Your task to perform on an android device: Play the last video I watched on Youtube Image 0: 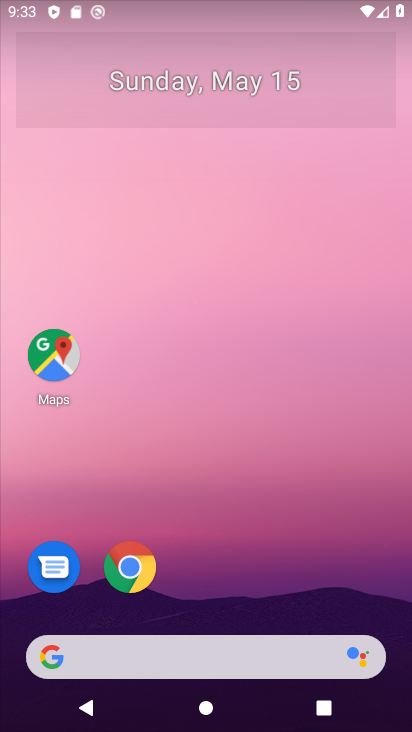
Step 0: drag from (242, 563) to (237, 137)
Your task to perform on an android device: Play the last video I watched on Youtube Image 1: 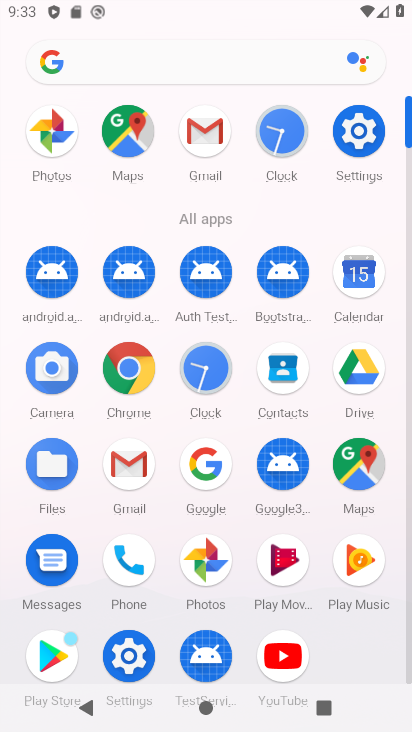
Step 1: click (285, 653)
Your task to perform on an android device: Play the last video I watched on Youtube Image 2: 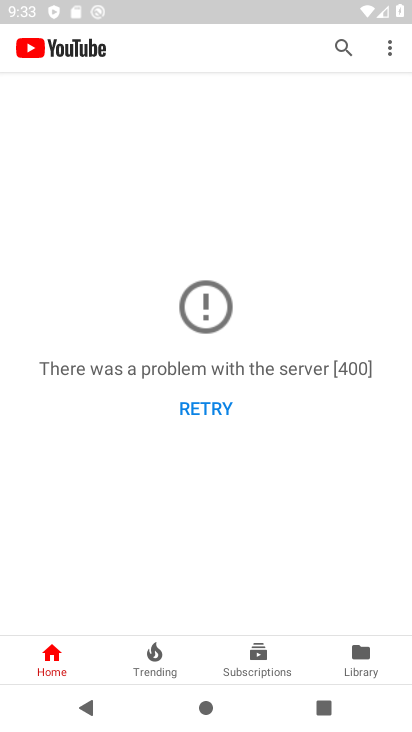
Step 2: click (346, 43)
Your task to perform on an android device: Play the last video I watched on Youtube Image 3: 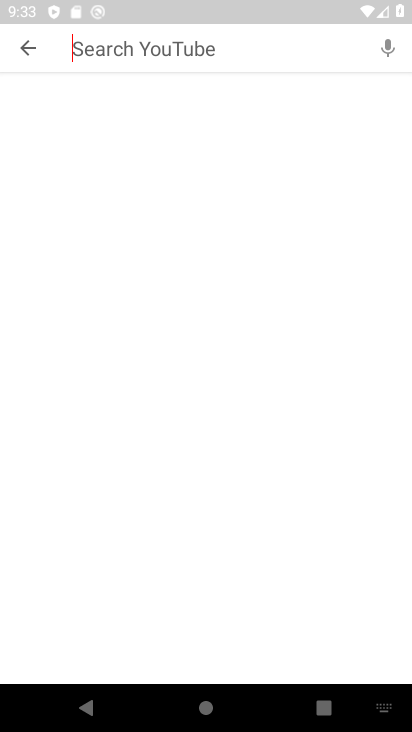
Step 3: task complete